Your task to perform on an android device: Go to battery settings Image 0: 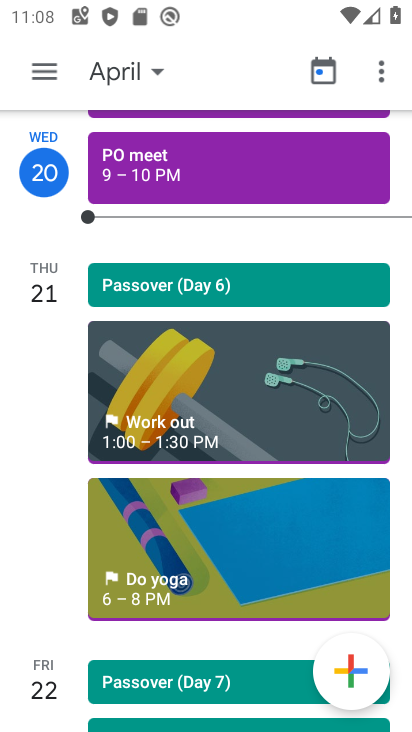
Step 0: press home button
Your task to perform on an android device: Go to battery settings Image 1: 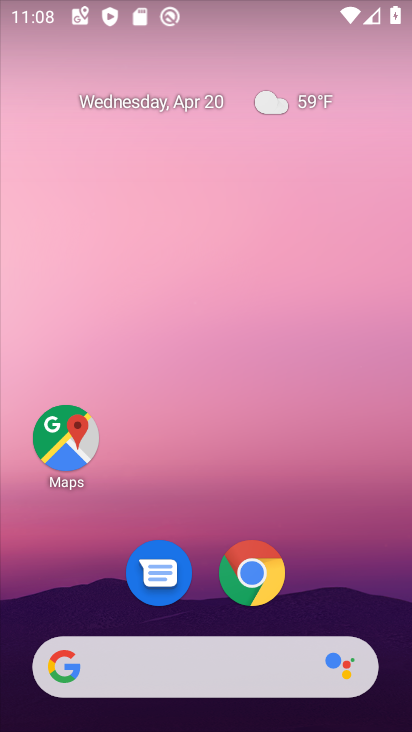
Step 1: drag from (345, 528) to (331, 1)
Your task to perform on an android device: Go to battery settings Image 2: 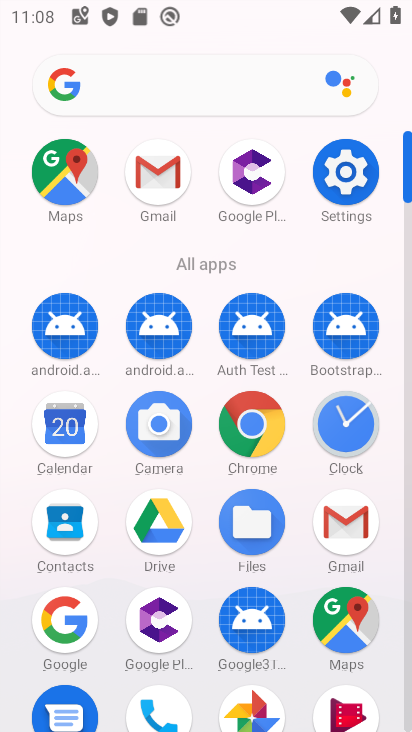
Step 2: click (346, 171)
Your task to perform on an android device: Go to battery settings Image 3: 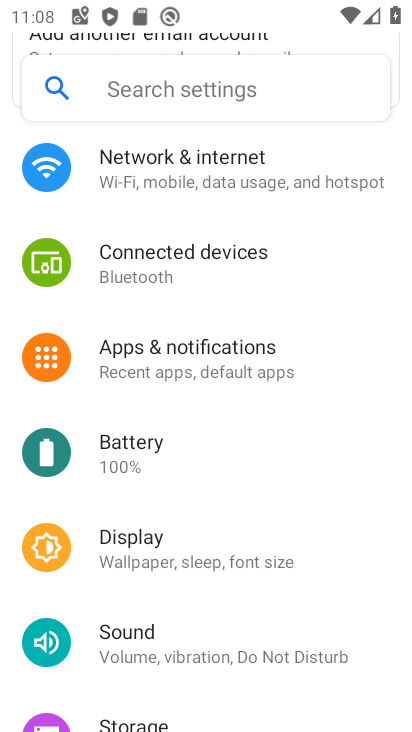
Step 3: click (112, 464)
Your task to perform on an android device: Go to battery settings Image 4: 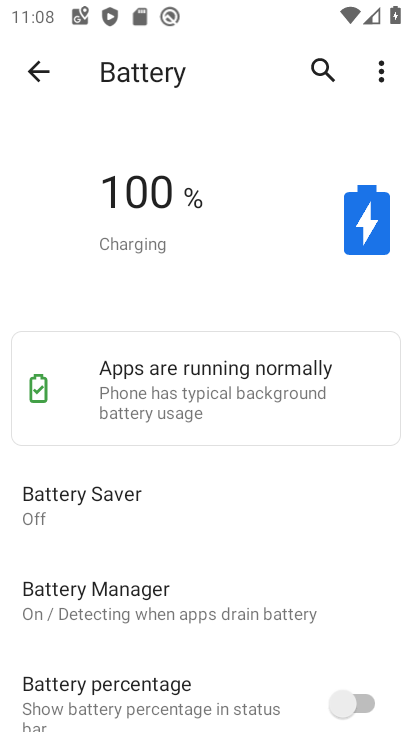
Step 4: task complete